Your task to perform on an android device: Open maps Image 0: 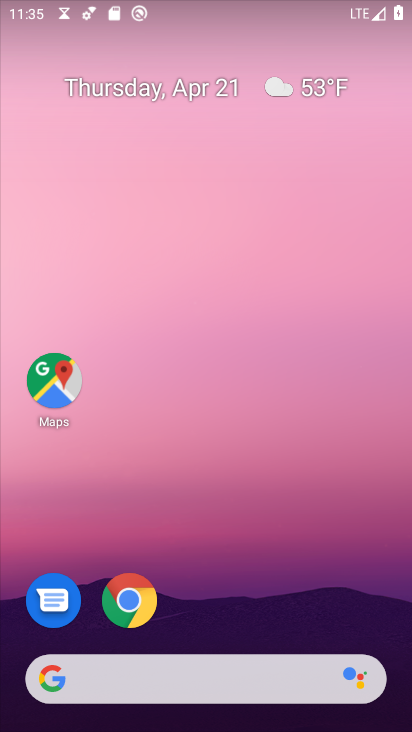
Step 0: click (55, 385)
Your task to perform on an android device: Open maps Image 1: 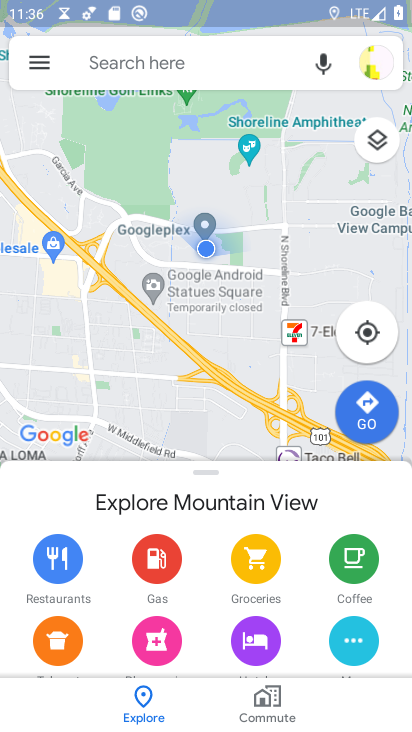
Step 1: task complete